Your task to perform on an android device: turn on improve location accuracy Image 0: 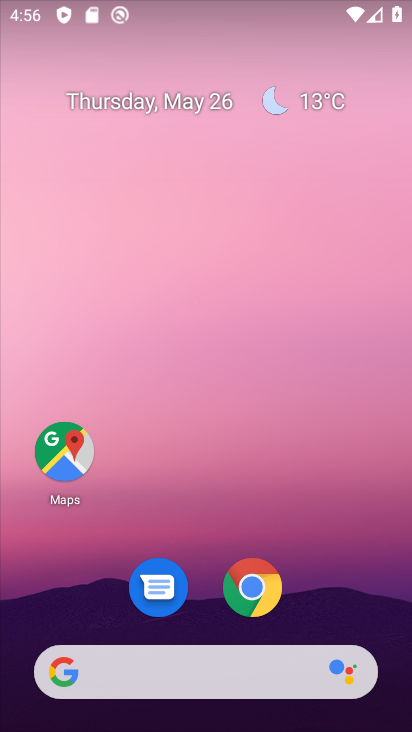
Step 0: drag from (212, 725) to (198, 232)
Your task to perform on an android device: turn on improve location accuracy Image 1: 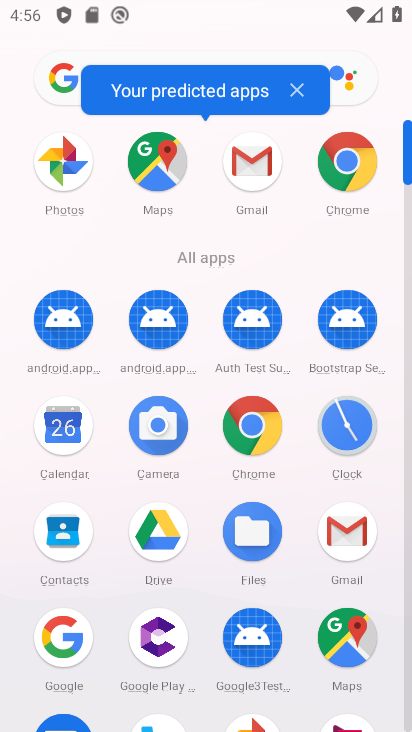
Step 1: drag from (218, 638) to (220, 244)
Your task to perform on an android device: turn on improve location accuracy Image 2: 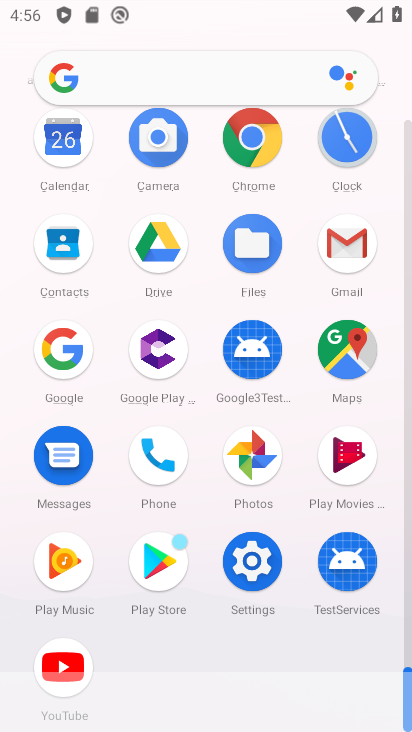
Step 2: click (264, 561)
Your task to perform on an android device: turn on improve location accuracy Image 3: 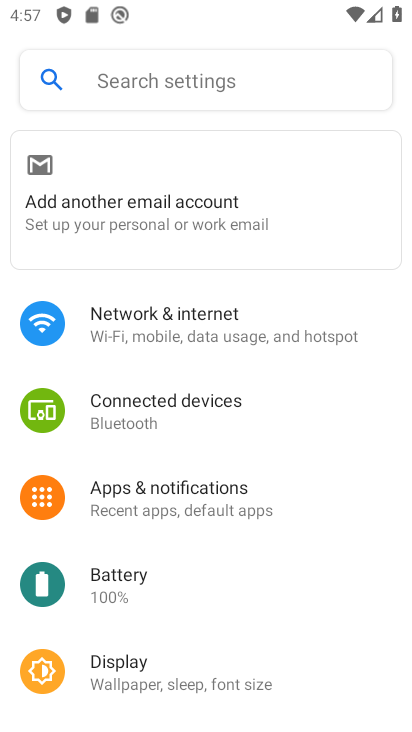
Step 3: drag from (177, 702) to (185, 275)
Your task to perform on an android device: turn on improve location accuracy Image 4: 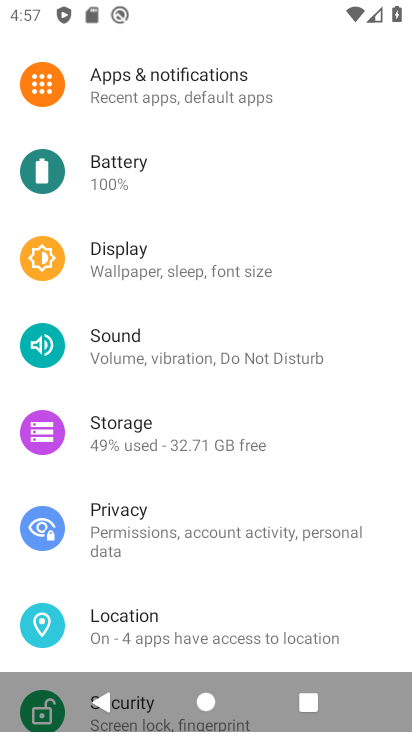
Step 4: click (176, 634)
Your task to perform on an android device: turn on improve location accuracy Image 5: 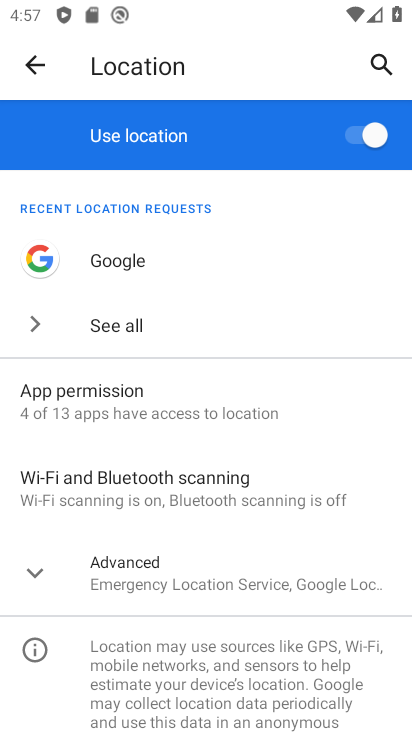
Step 5: click (166, 572)
Your task to perform on an android device: turn on improve location accuracy Image 6: 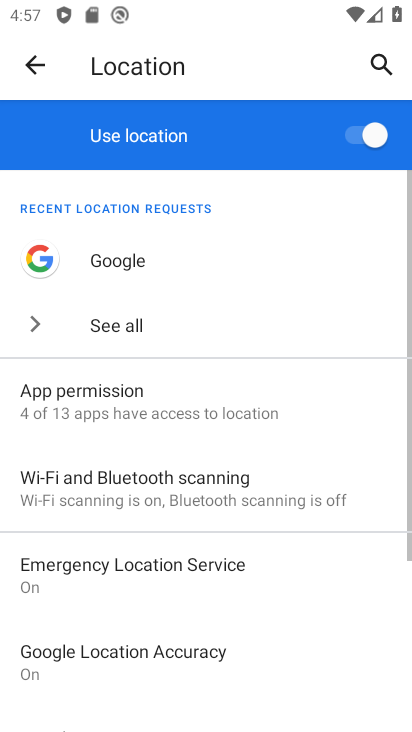
Step 6: drag from (178, 686) to (177, 464)
Your task to perform on an android device: turn on improve location accuracy Image 7: 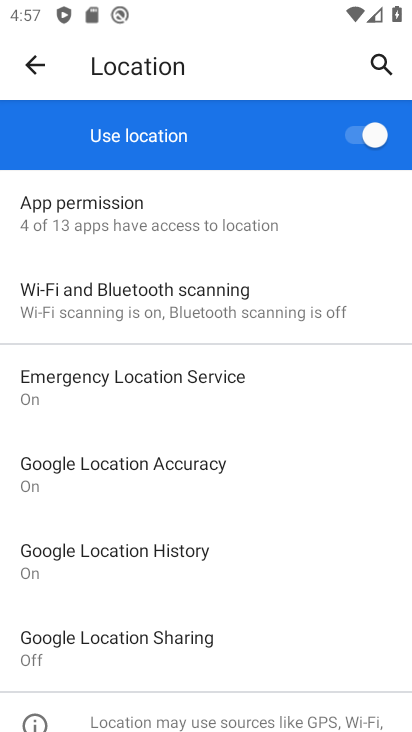
Step 7: click (145, 463)
Your task to perform on an android device: turn on improve location accuracy Image 8: 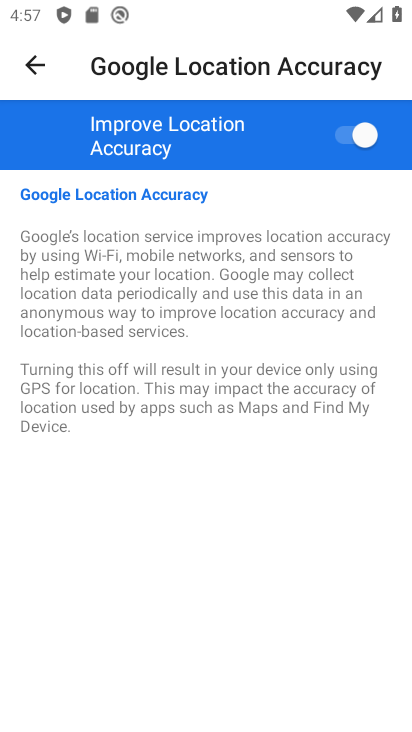
Step 8: task complete